Your task to perform on an android device: Show me some nice wallpapers for my laptop Image 0: 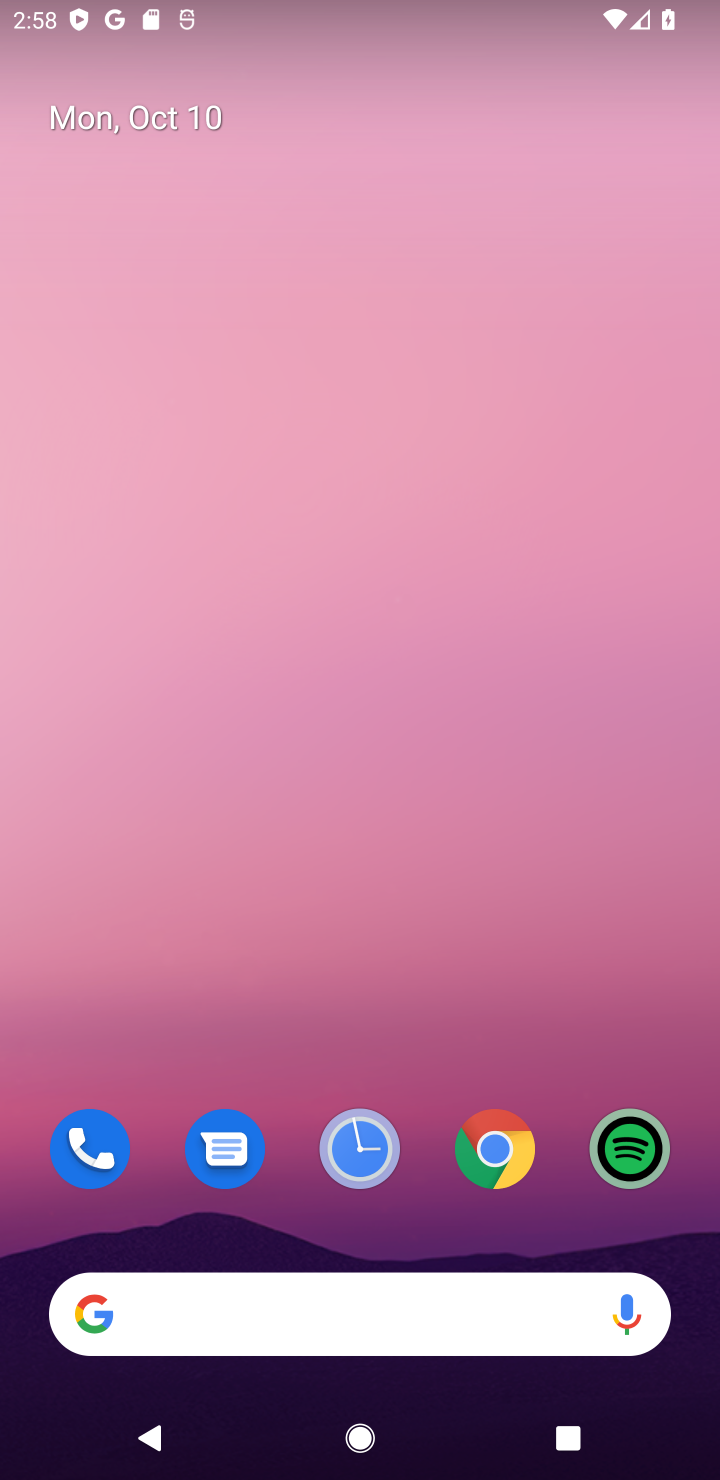
Step 0: click (239, 1278)
Your task to perform on an android device: Show me some nice wallpapers for my laptop Image 1: 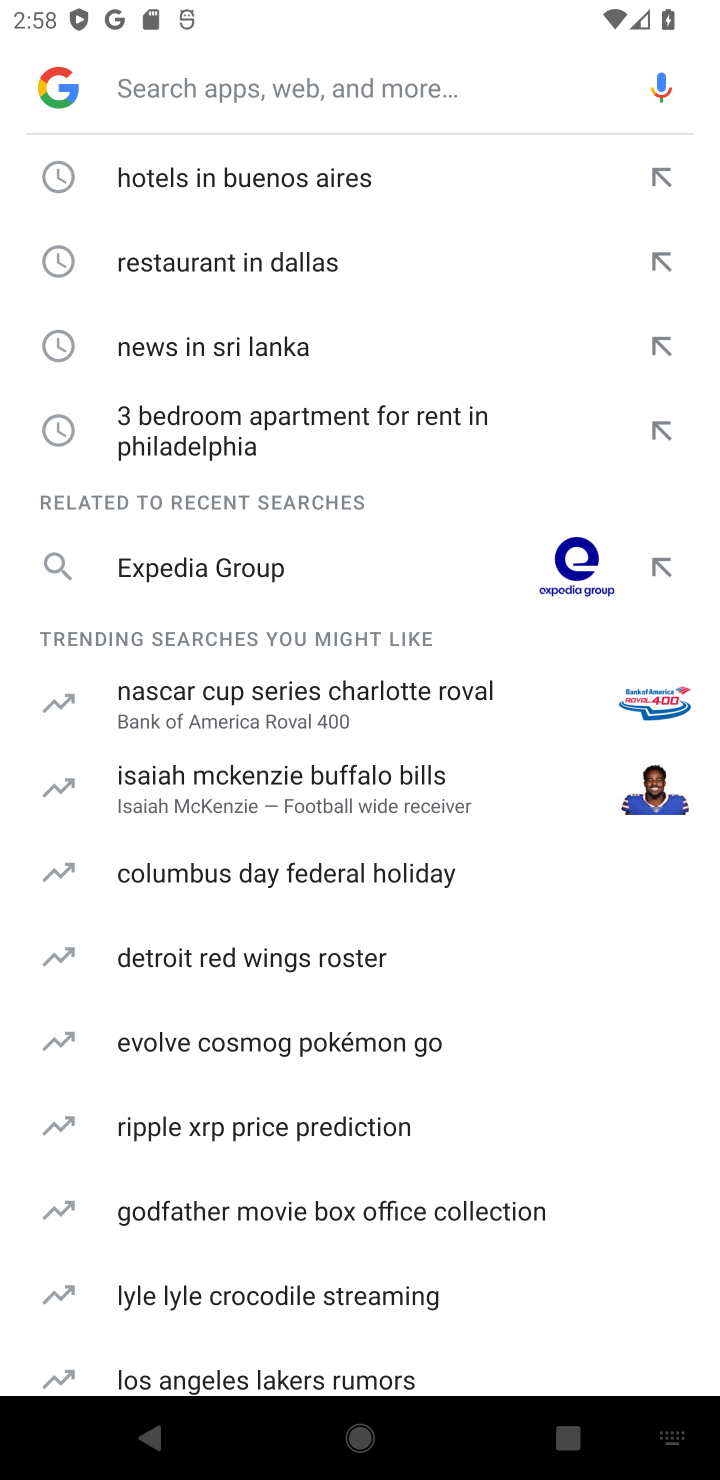
Step 1: type "Show me some nice wallpapers for my laptop"
Your task to perform on an android device: Show me some nice wallpapers for my laptop Image 2: 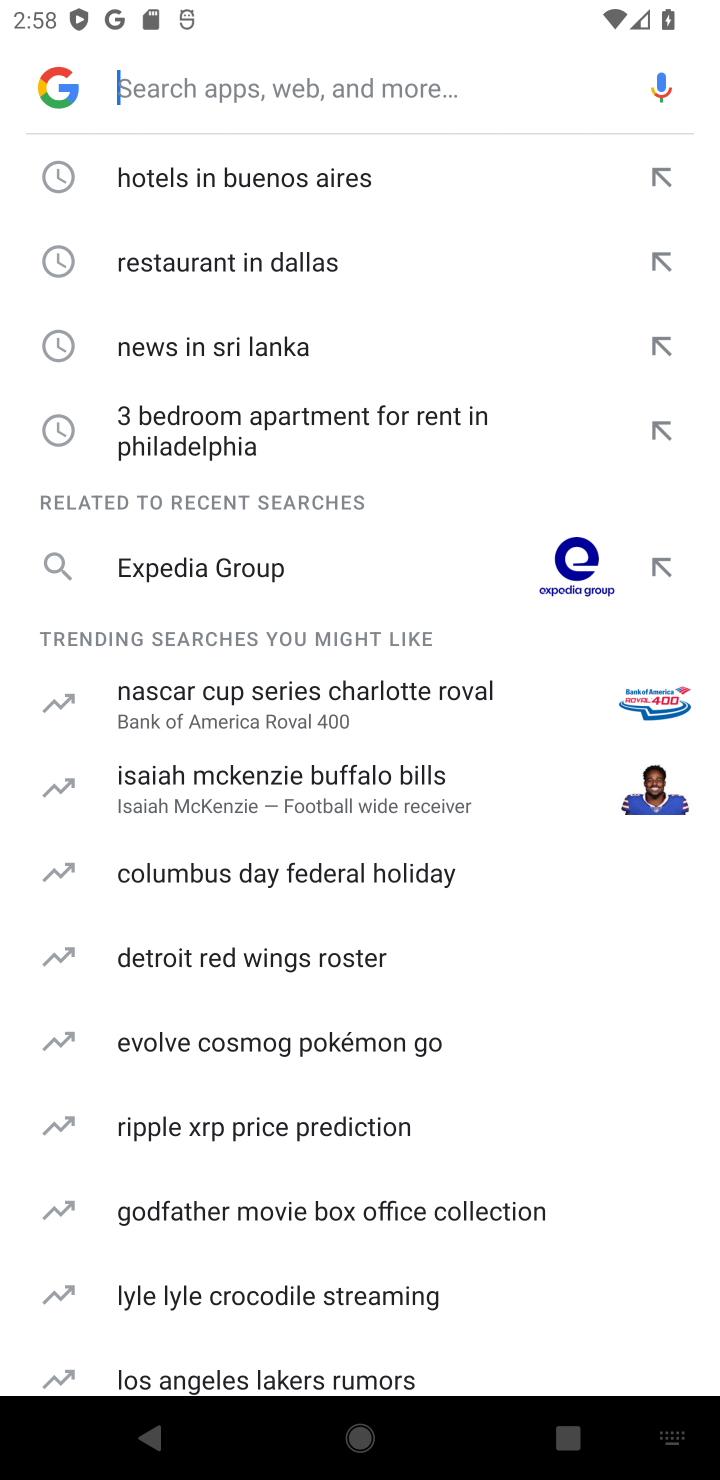
Step 2: click (439, 176)
Your task to perform on an android device: Show me some nice wallpapers for my laptop Image 3: 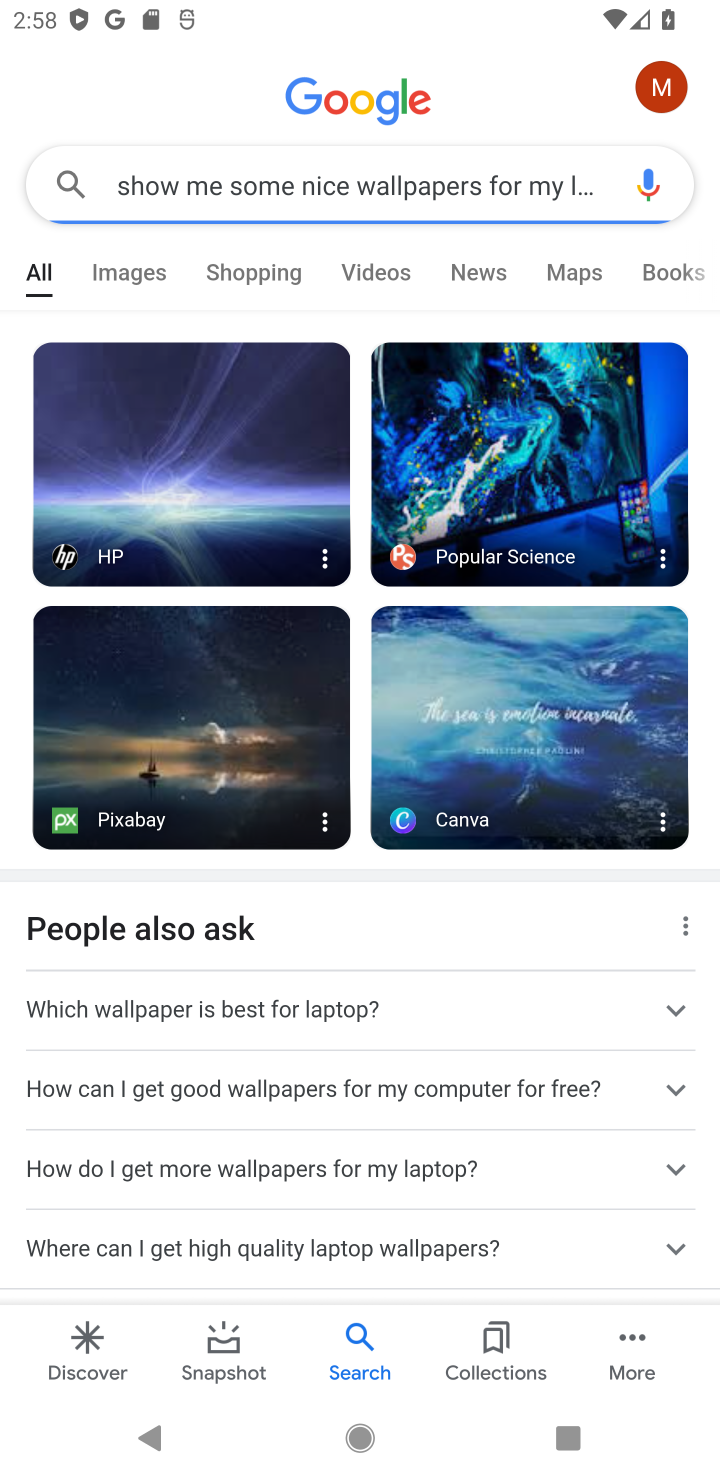
Step 3: task complete